Your task to perform on an android device: see tabs open on other devices in the chrome app Image 0: 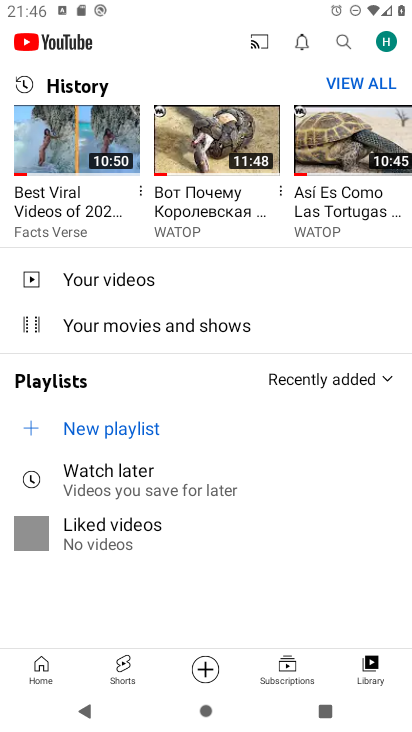
Step 0: press home button
Your task to perform on an android device: see tabs open on other devices in the chrome app Image 1: 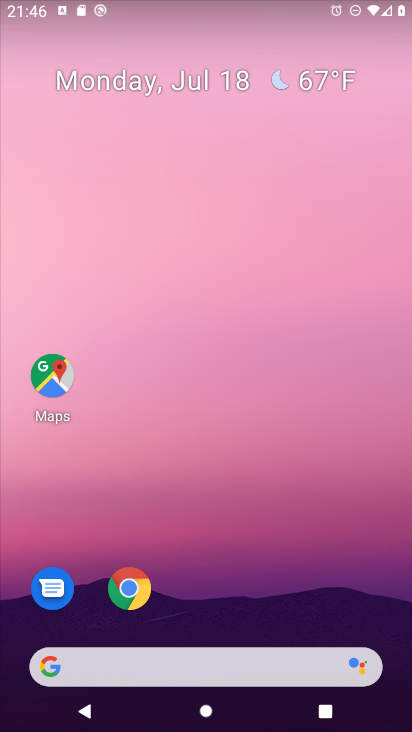
Step 1: click (128, 585)
Your task to perform on an android device: see tabs open on other devices in the chrome app Image 2: 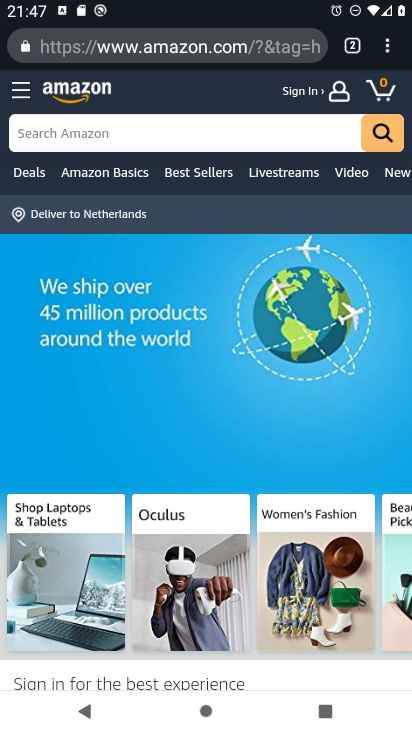
Step 2: click (386, 52)
Your task to perform on an android device: see tabs open on other devices in the chrome app Image 3: 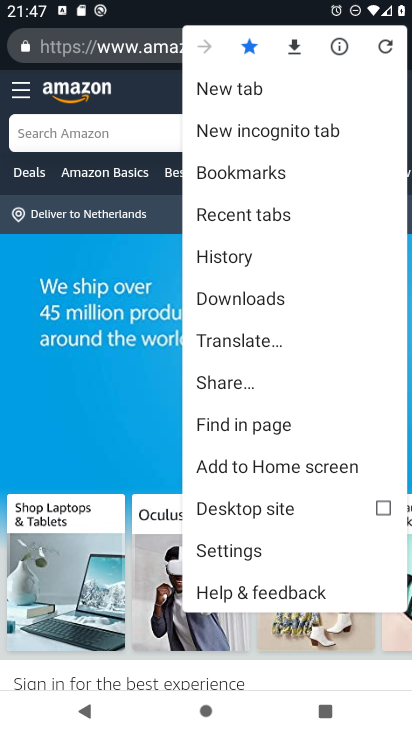
Step 3: click (227, 219)
Your task to perform on an android device: see tabs open on other devices in the chrome app Image 4: 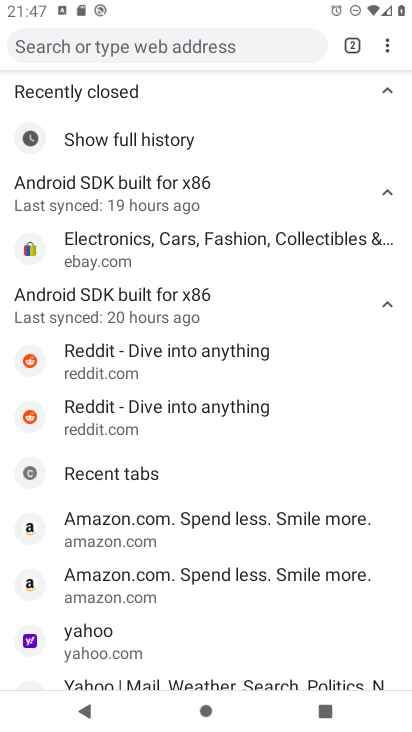
Step 4: task complete